Your task to perform on an android device: toggle wifi Image 0: 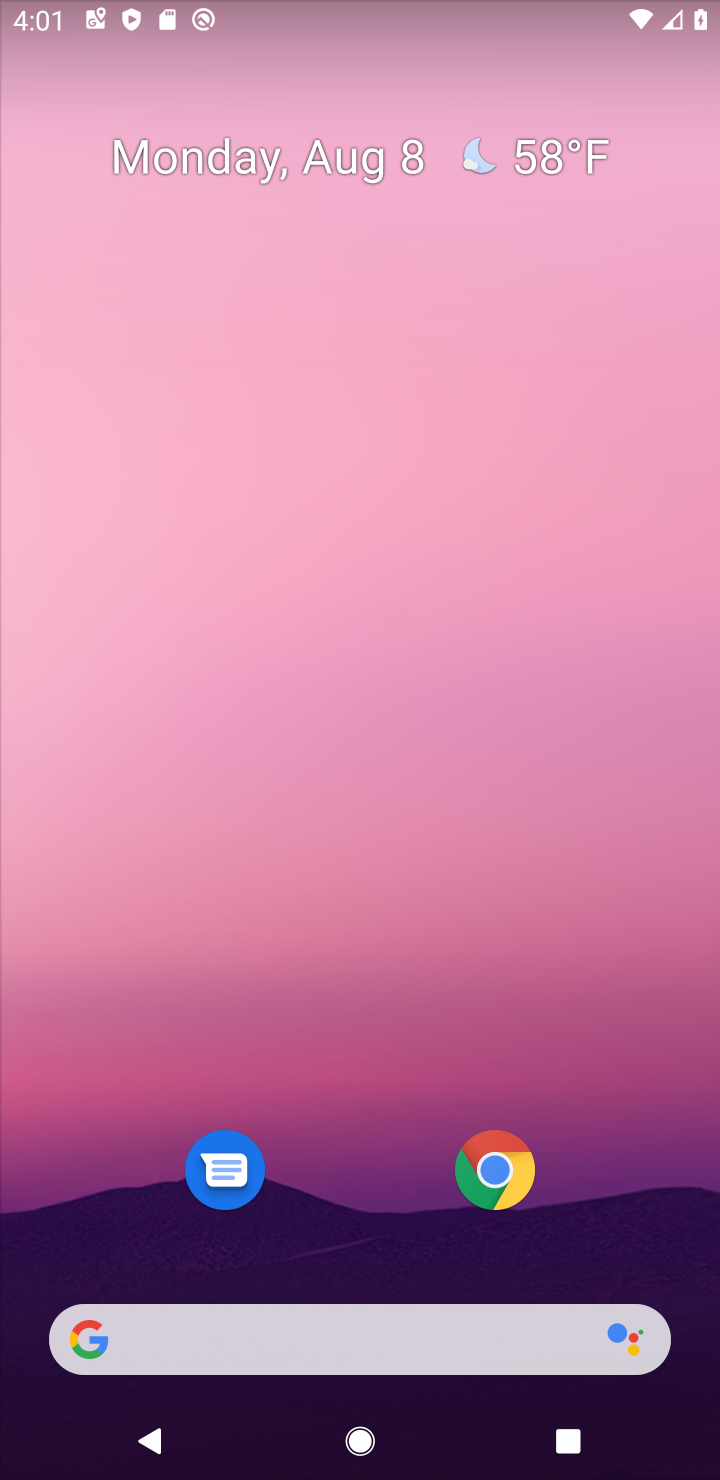
Step 0: drag from (332, 956) to (292, 391)
Your task to perform on an android device: toggle wifi Image 1: 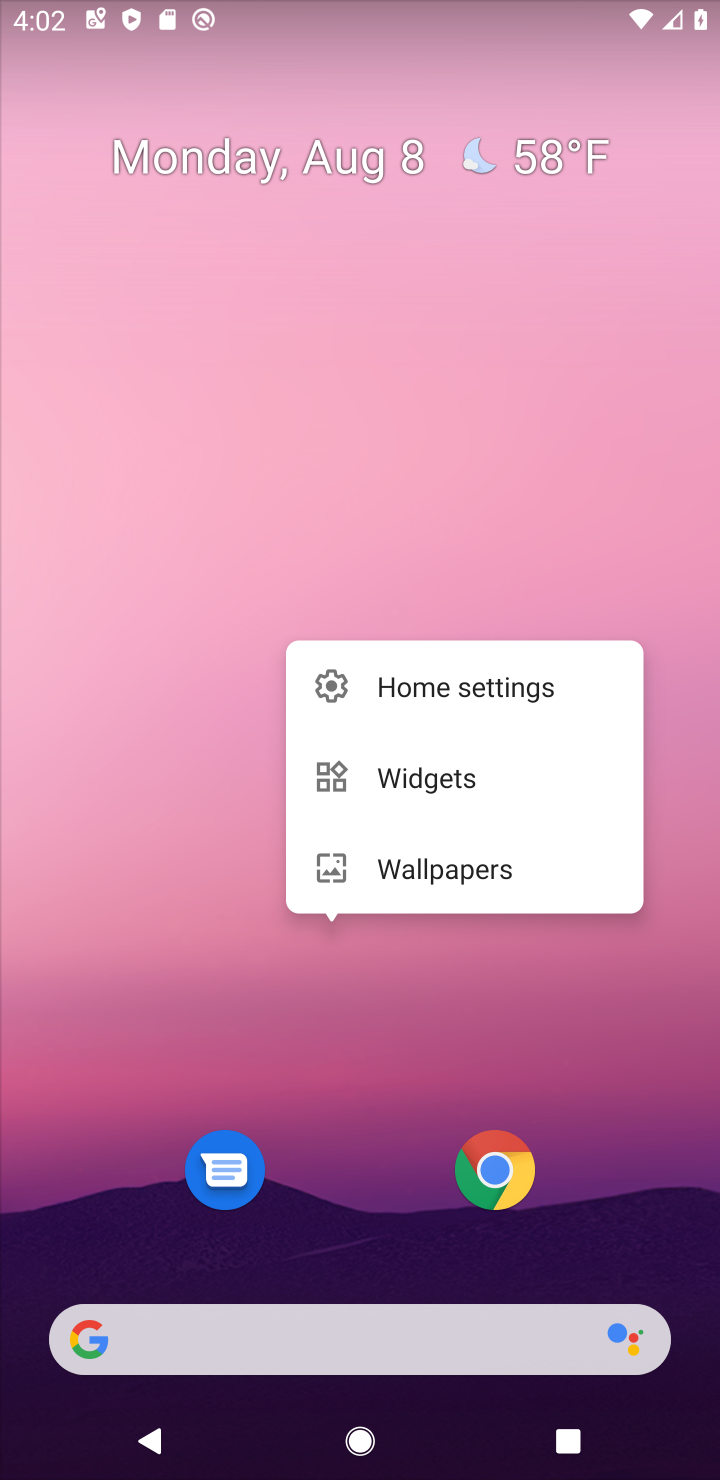
Step 1: click (299, 1015)
Your task to perform on an android device: toggle wifi Image 2: 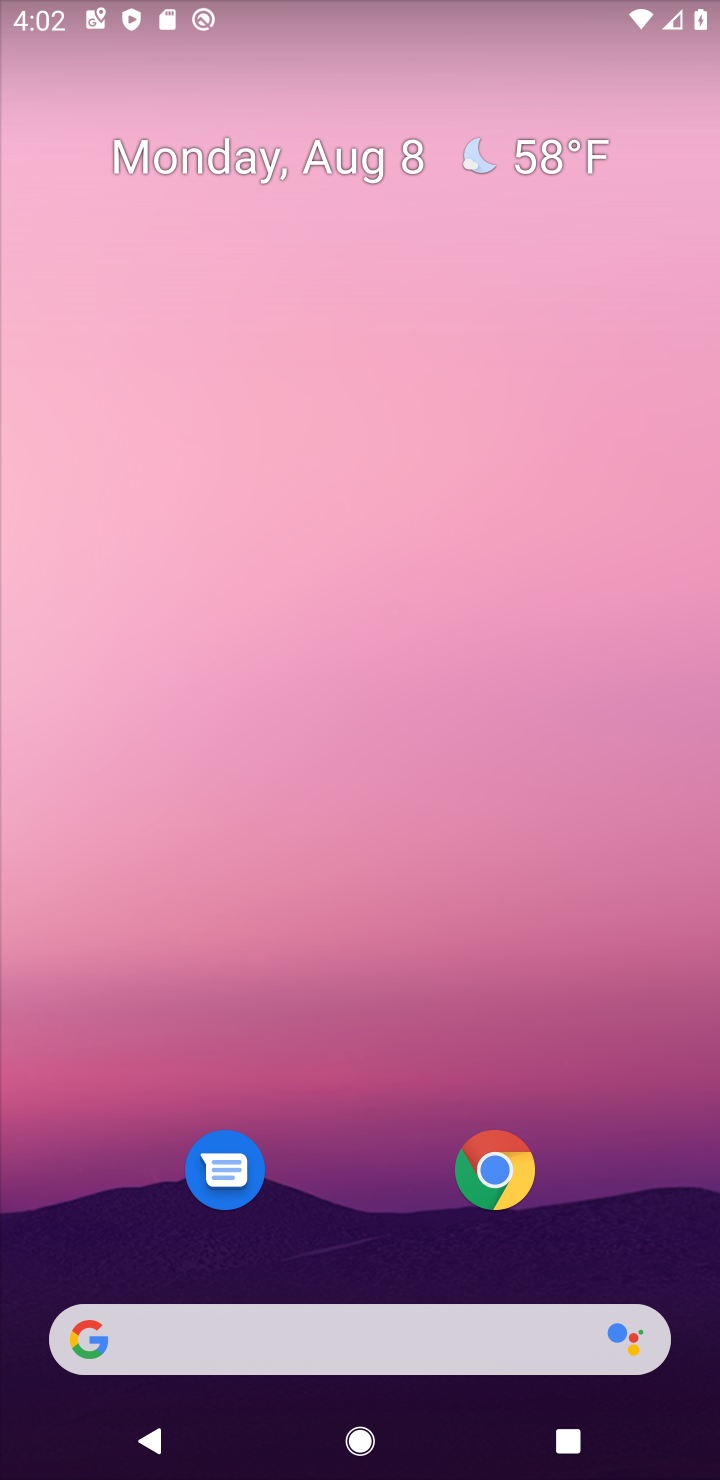
Step 2: drag from (351, 1041) to (298, 545)
Your task to perform on an android device: toggle wifi Image 3: 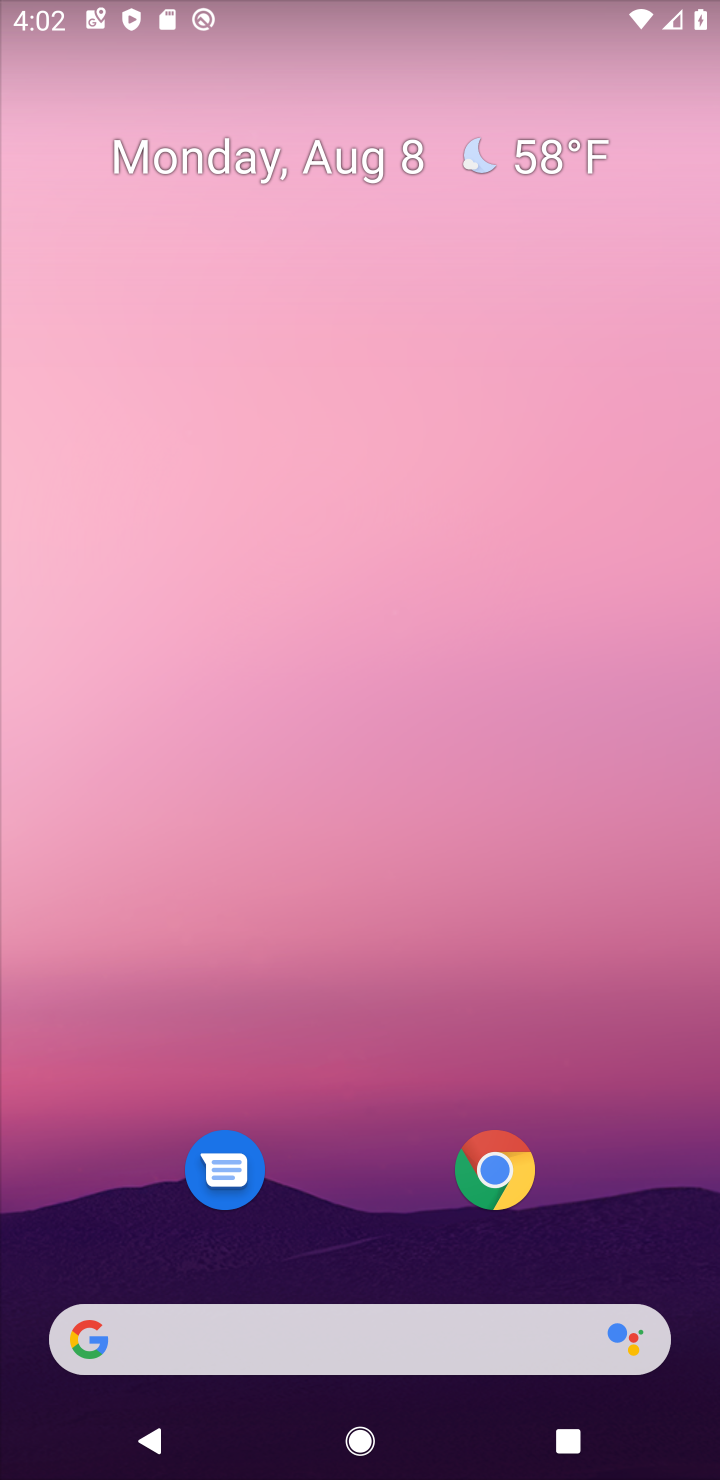
Step 3: drag from (345, 1131) to (345, 377)
Your task to perform on an android device: toggle wifi Image 4: 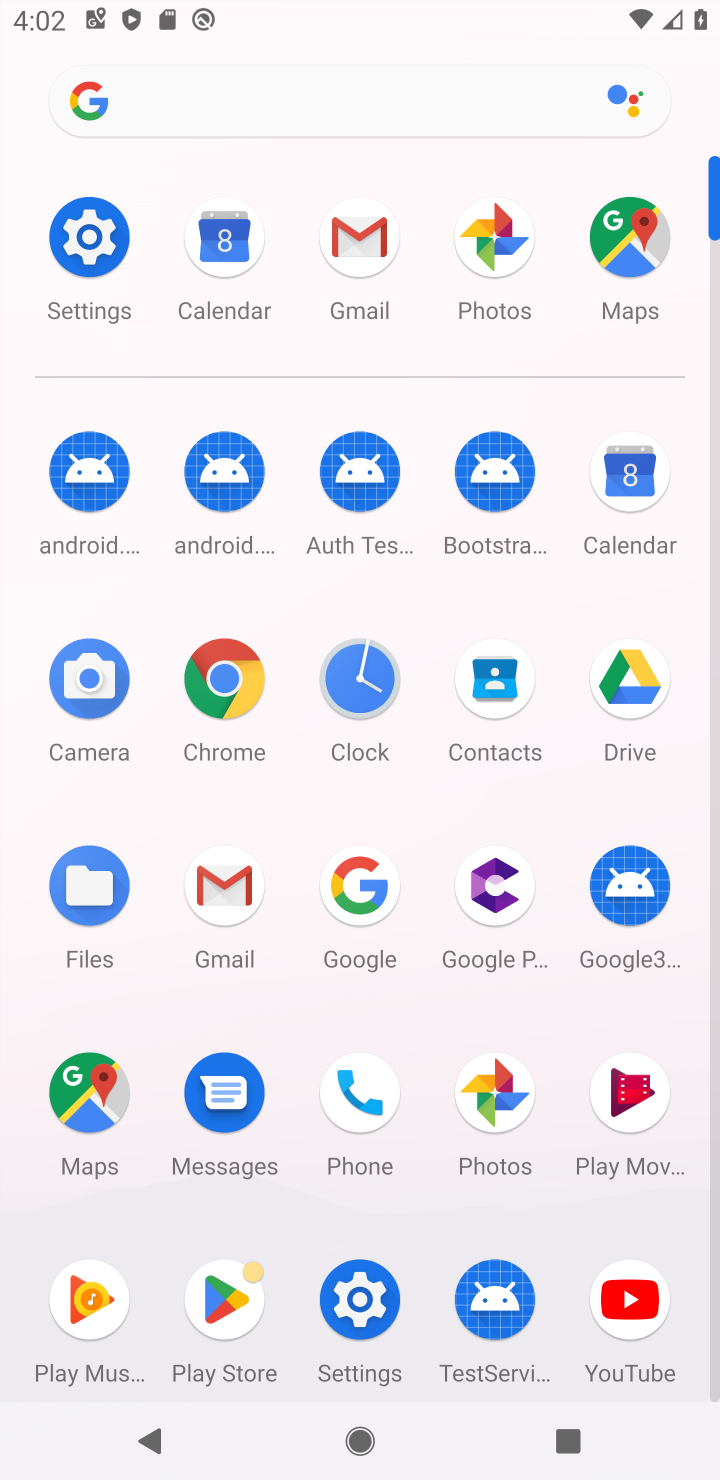
Step 4: click (94, 303)
Your task to perform on an android device: toggle wifi Image 5: 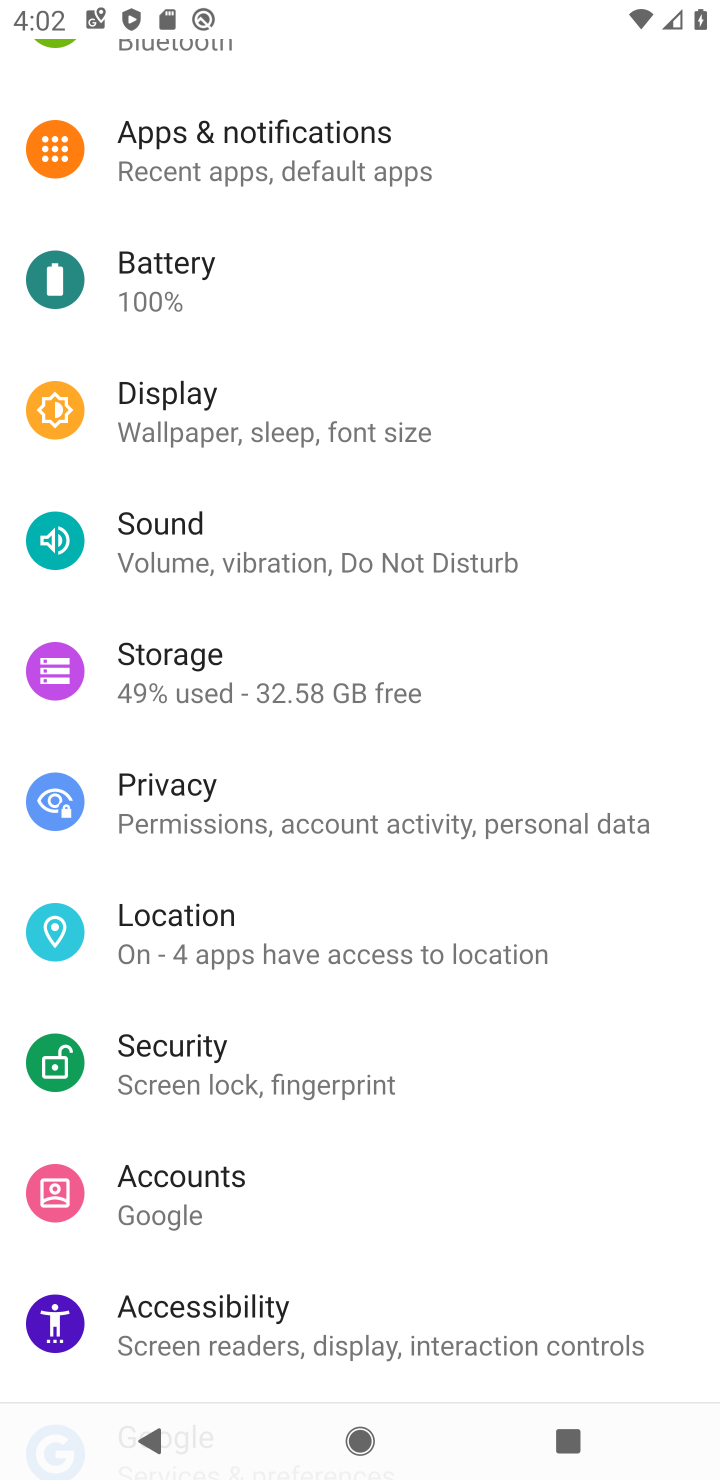
Step 5: drag from (307, 421) to (339, 891)
Your task to perform on an android device: toggle wifi Image 6: 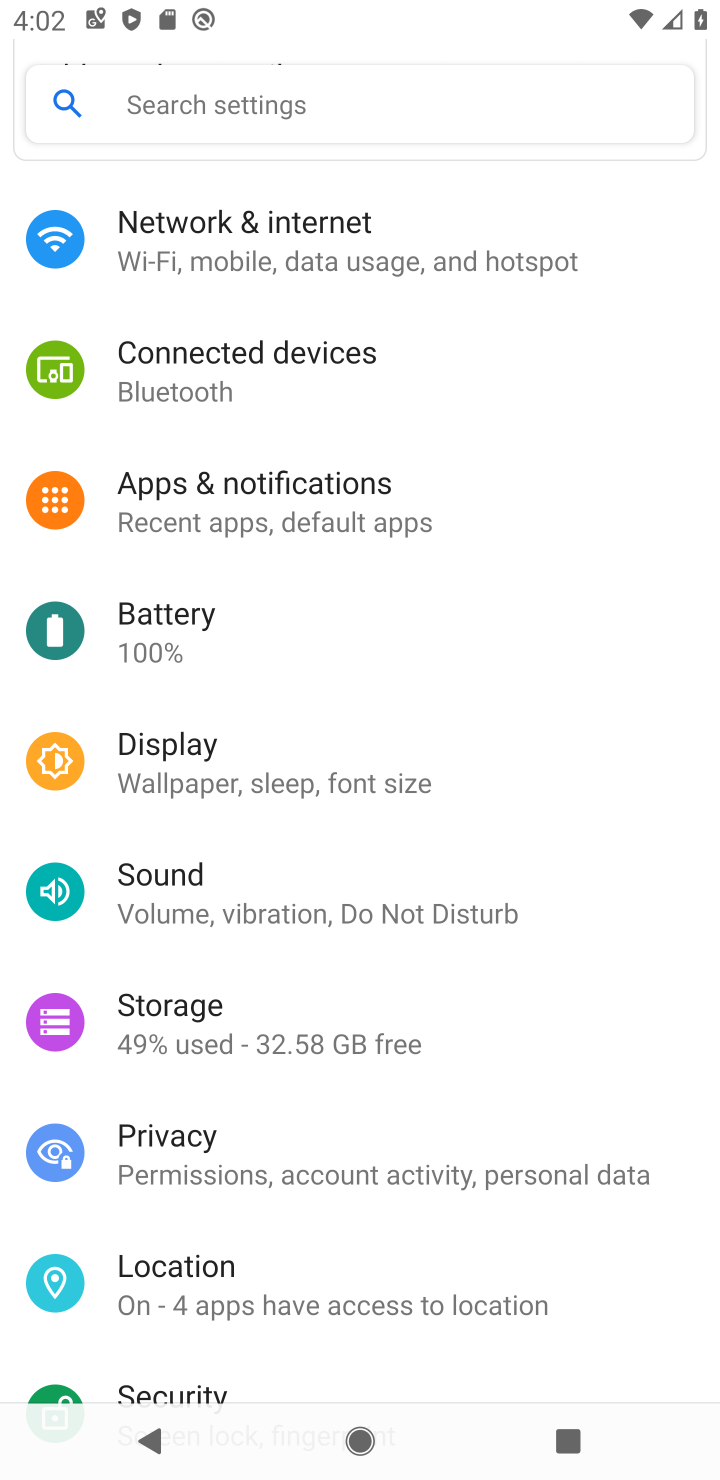
Step 6: click (215, 280)
Your task to perform on an android device: toggle wifi Image 7: 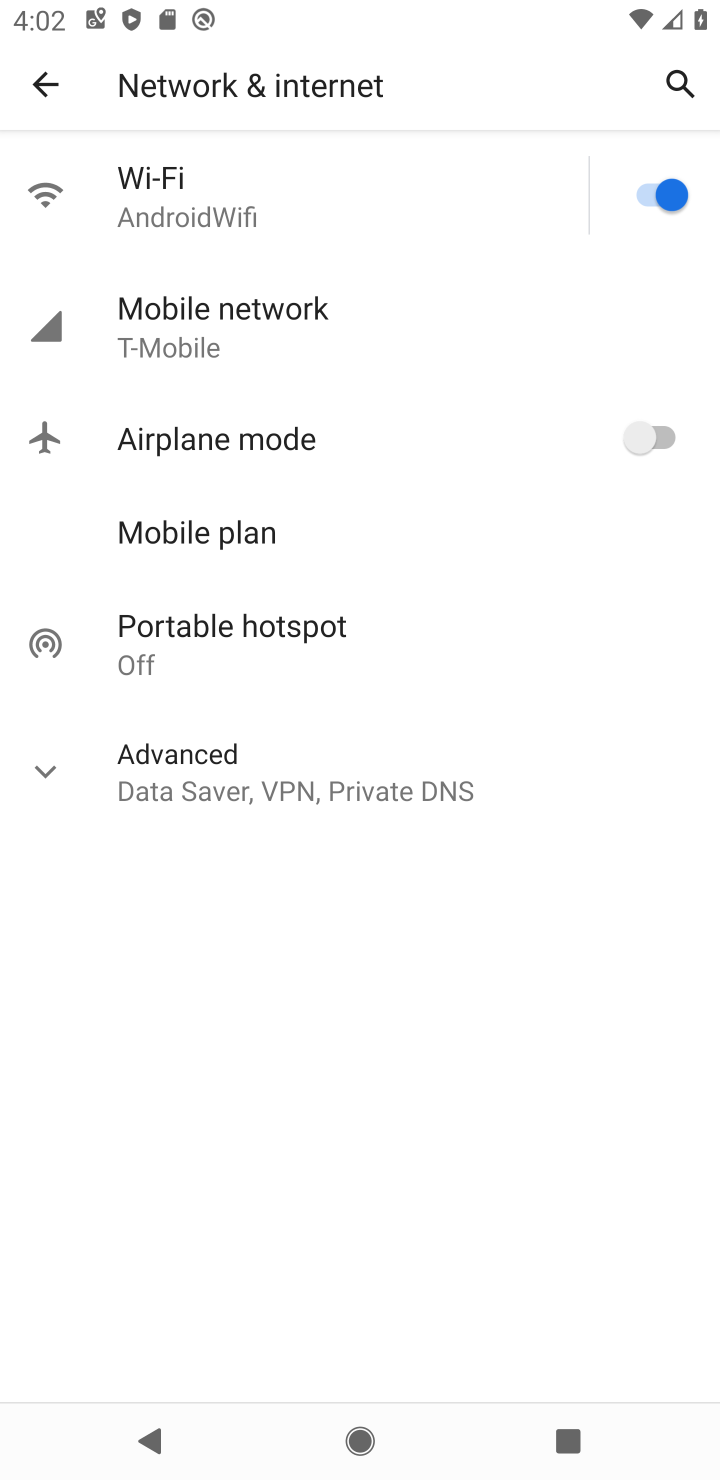
Step 7: click (632, 202)
Your task to perform on an android device: toggle wifi Image 8: 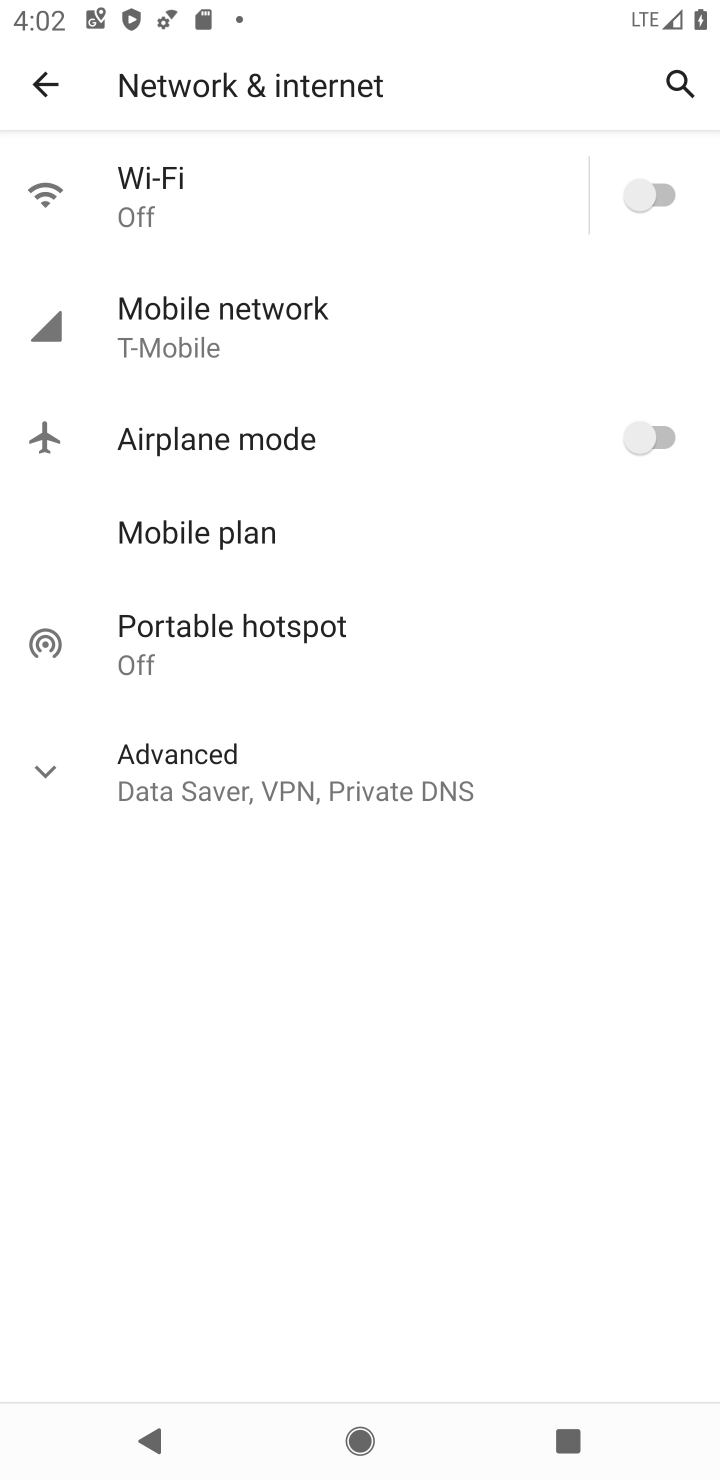
Step 8: task complete